Your task to perform on an android device: turn on the 24-hour format for clock Image 0: 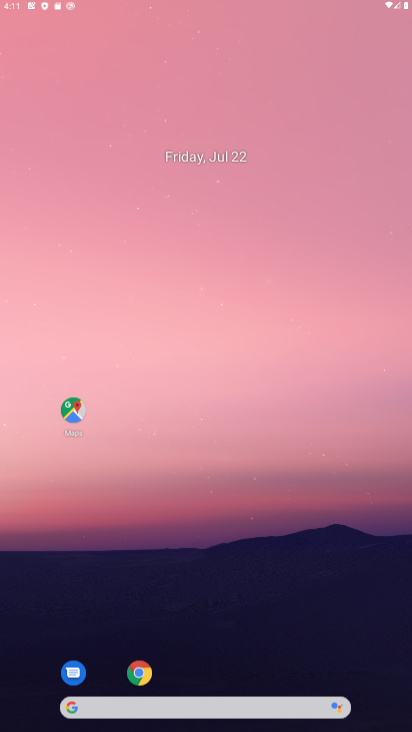
Step 0: press home button
Your task to perform on an android device: turn on the 24-hour format for clock Image 1: 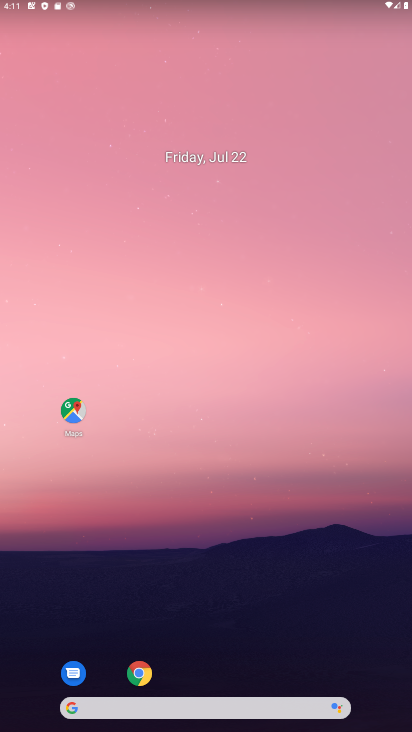
Step 1: drag from (218, 686) to (127, 0)
Your task to perform on an android device: turn on the 24-hour format for clock Image 2: 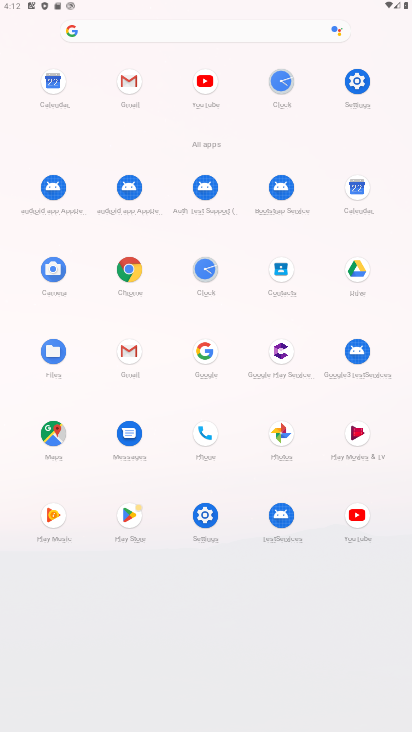
Step 2: click (201, 265)
Your task to perform on an android device: turn on the 24-hour format for clock Image 3: 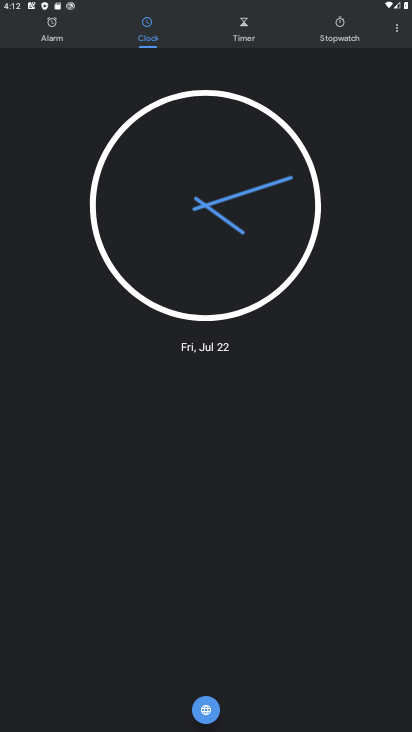
Step 3: click (396, 23)
Your task to perform on an android device: turn on the 24-hour format for clock Image 4: 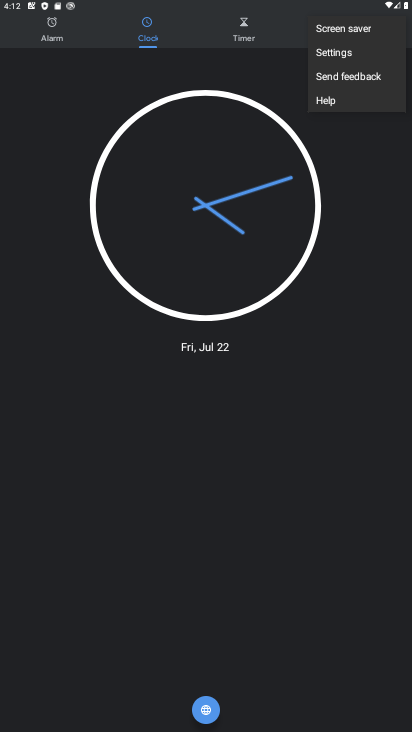
Step 4: click (352, 55)
Your task to perform on an android device: turn on the 24-hour format for clock Image 5: 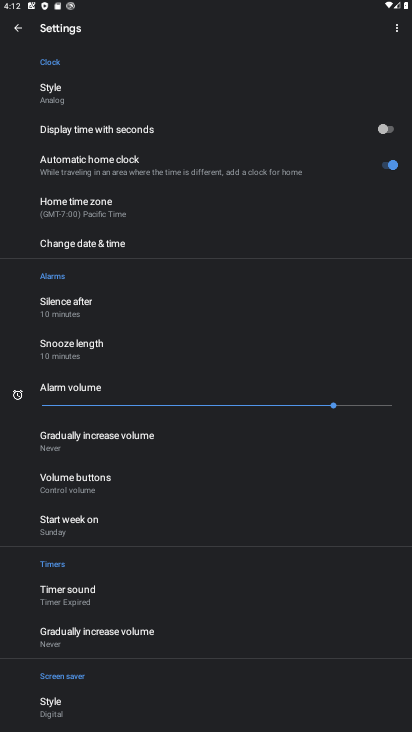
Step 5: click (129, 245)
Your task to perform on an android device: turn on the 24-hour format for clock Image 6: 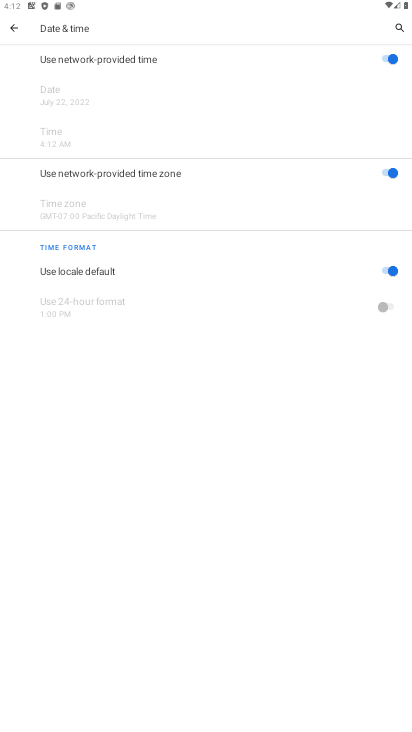
Step 6: click (391, 268)
Your task to perform on an android device: turn on the 24-hour format for clock Image 7: 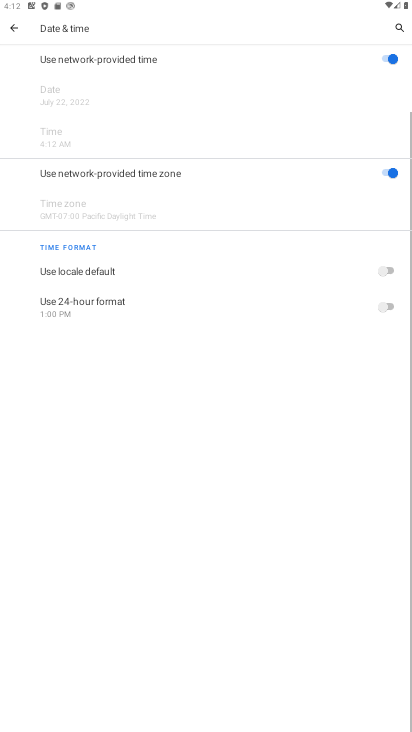
Step 7: click (390, 304)
Your task to perform on an android device: turn on the 24-hour format for clock Image 8: 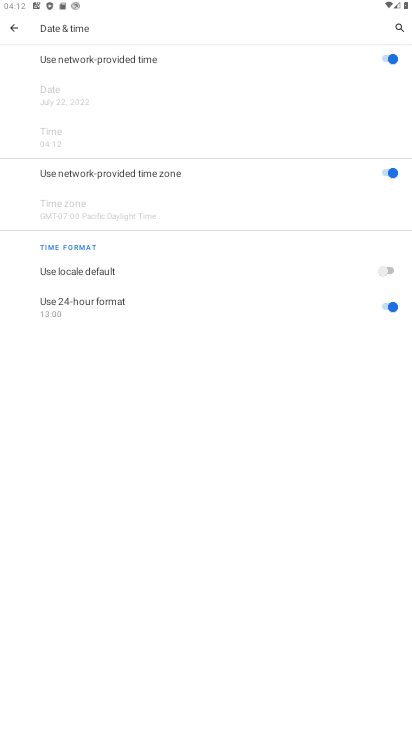
Step 8: task complete